Your task to perform on an android device: open app "Roku - Official Remote Control" Image 0: 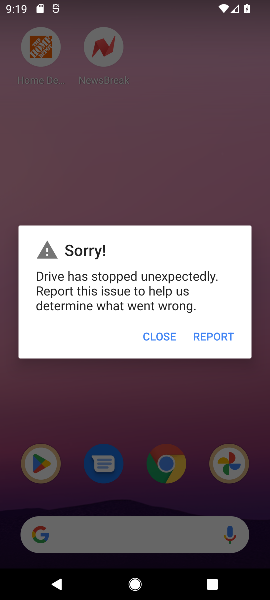
Step 0: click (157, 335)
Your task to perform on an android device: open app "Roku - Official Remote Control" Image 1: 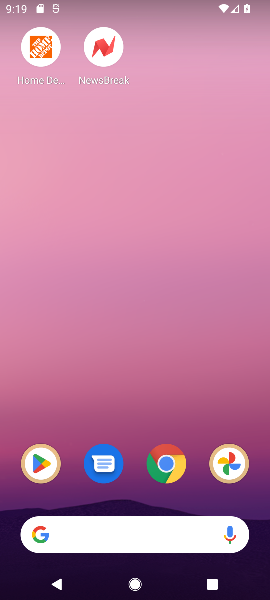
Step 1: click (32, 467)
Your task to perform on an android device: open app "Roku - Official Remote Control" Image 2: 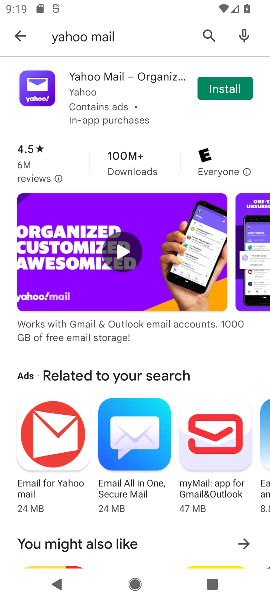
Step 2: click (204, 38)
Your task to perform on an android device: open app "Roku - Official Remote Control" Image 3: 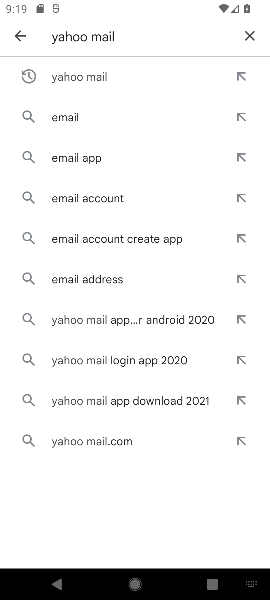
Step 3: click (251, 34)
Your task to perform on an android device: open app "Roku - Official Remote Control" Image 4: 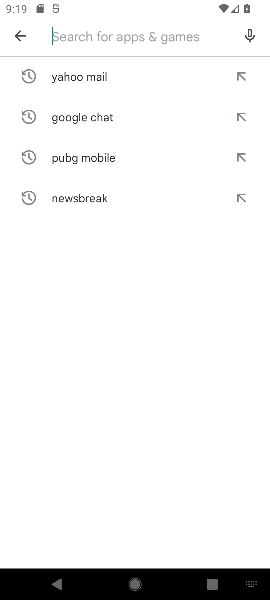
Step 4: click (118, 29)
Your task to perform on an android device: open app "Roku - Official Remote Control" Image 5: 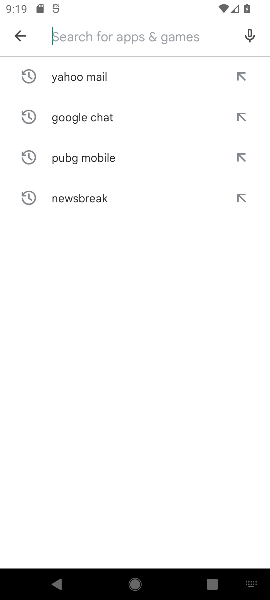
Step 5: type "roku"
Your task to perform on an android device: open app "Roku - Official Remote Control" Image 6: 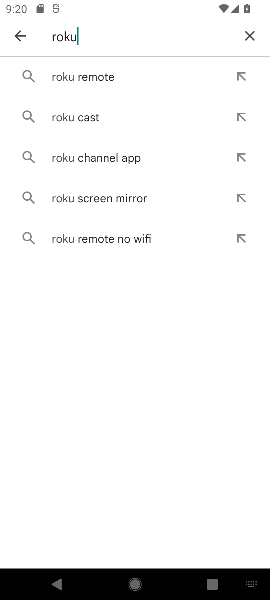
Step 6: click (96, 70)
Your task to perform on an android device: open app "Roku - Official Remote Control" Image 7: 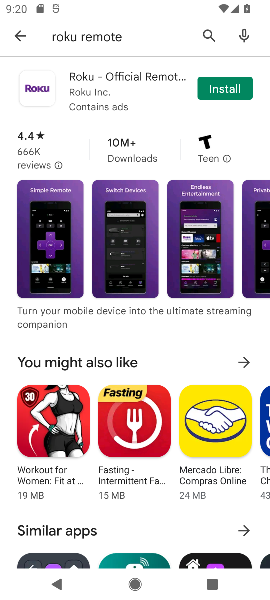
Step 7: task complete